Your task to perform on an android device: all mails in gmail Image 0: 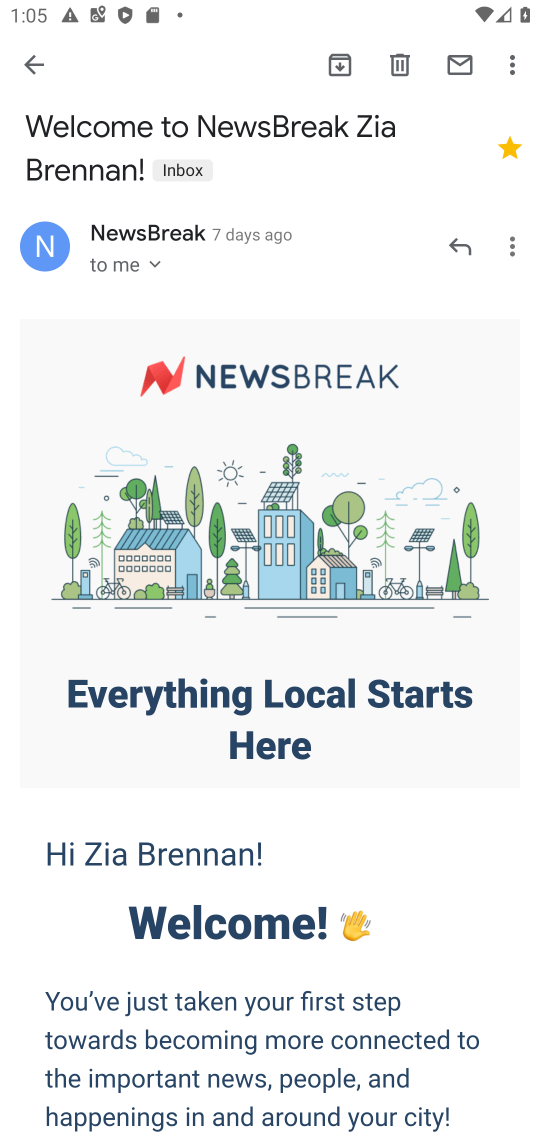
Step 0: click (29, 65)
Your task to perform on an android device: all mails in gmail Image 1: 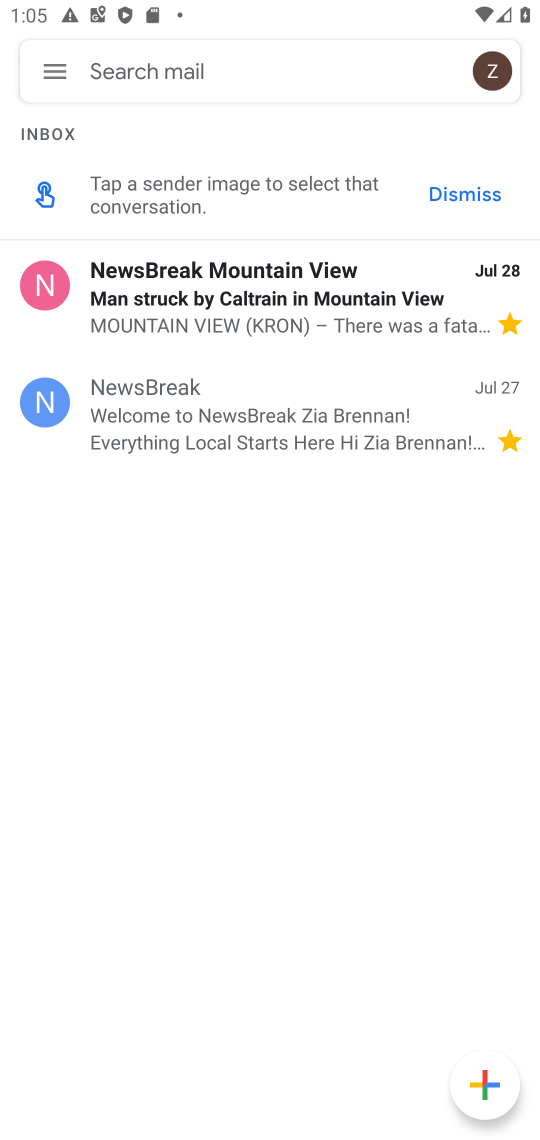
Step 1: click (53, 71)
Your task to perform on an android device: all mails in gmail Image 2: 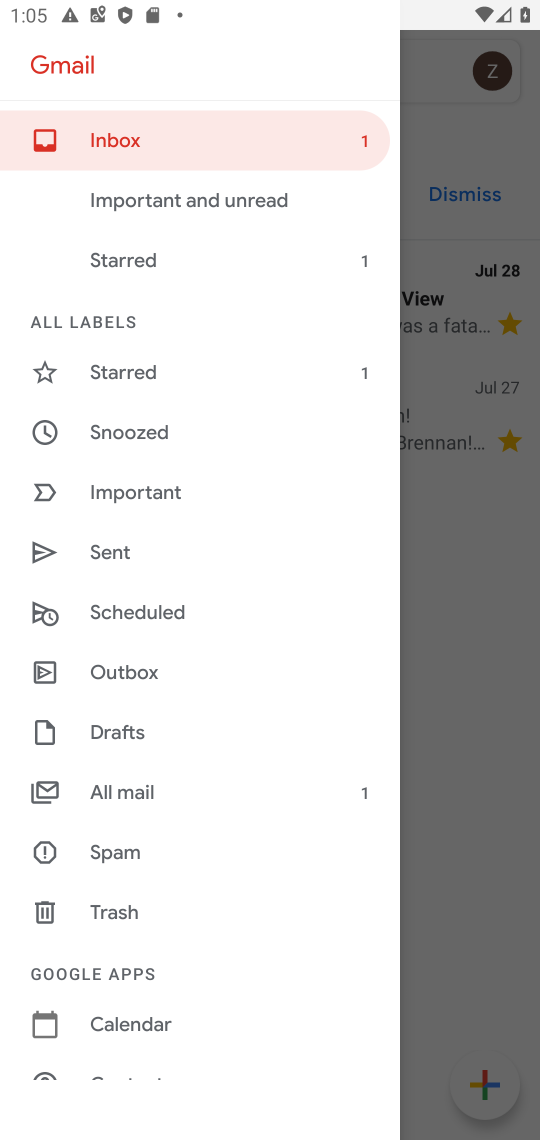
Step 2: click (113, 785)
Your task to perform on an android device: all mails in gmail Image 3: 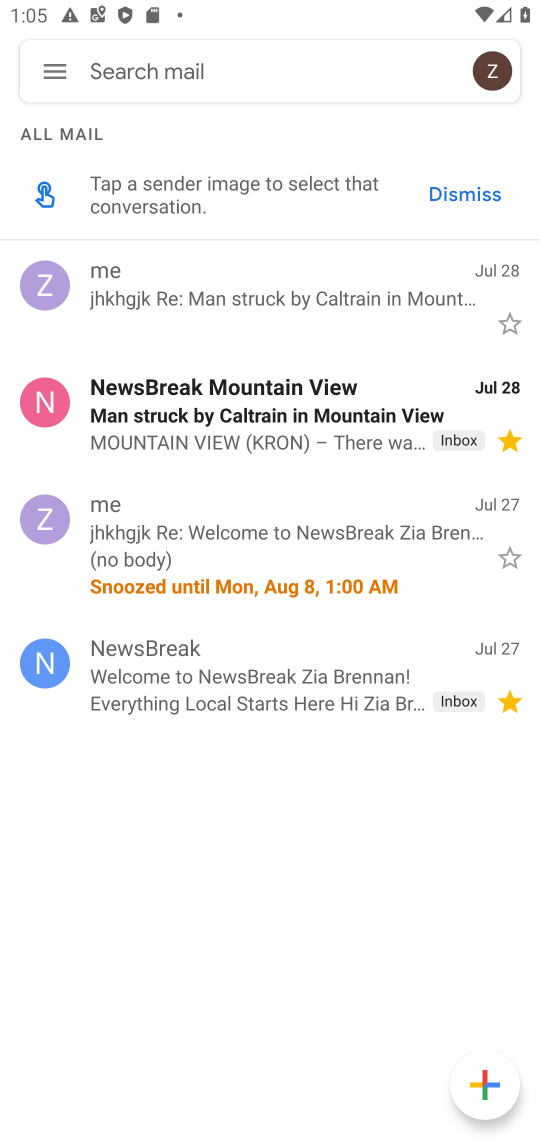
Step 3: task complete